Your task to perform on an android device: Open internet settings Image 0: 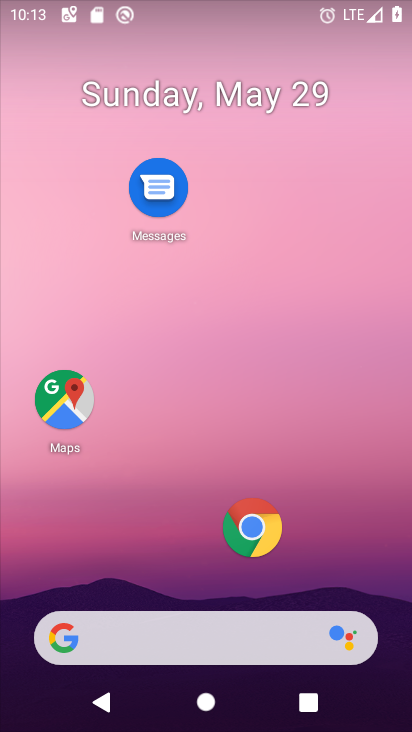
Step 0: drag from (206, 562) to (191, 38)
Your task to perform on an android device: Open internet settings Image 1: 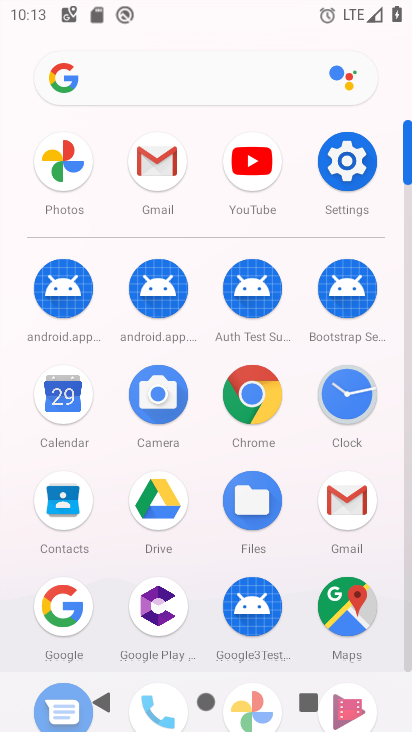
Step 1: click (336, 160)
Your task to perform on an android device: Open internet settings Image 2: 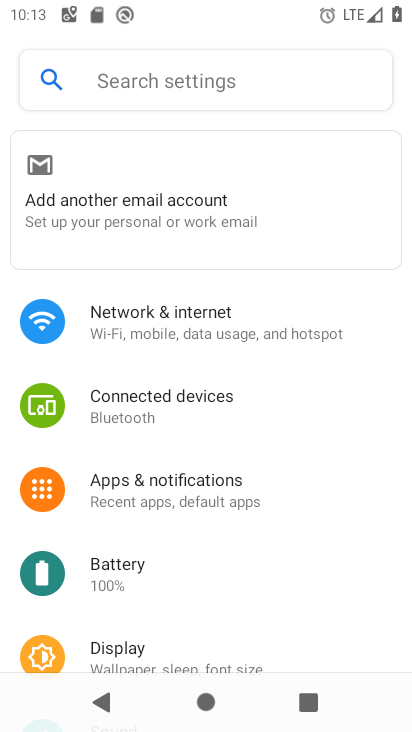
Step 2: click (175, 320)
Your task to perform on an android device: Open internet settings Image 3: 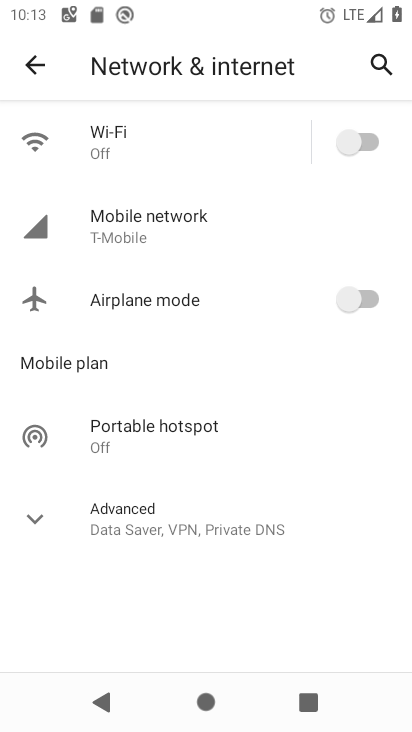
Step 3: click (58, 517)
Your task to perform on an android device: Open internet settings Image 4: 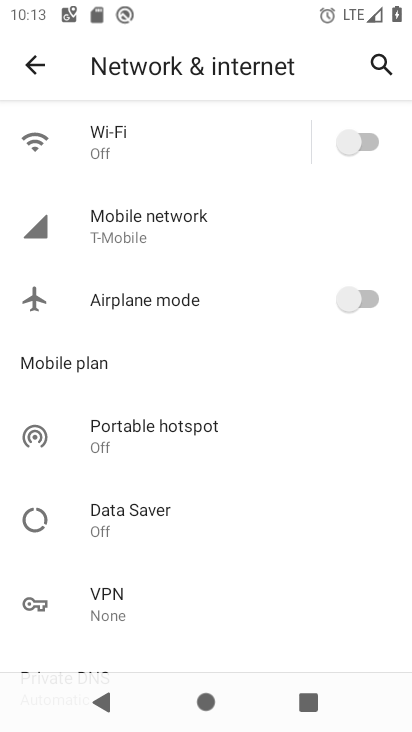
Step 4: task complete